Your task to perform on an android device: read, delete, or share a saved page in the chrome app Image 0: 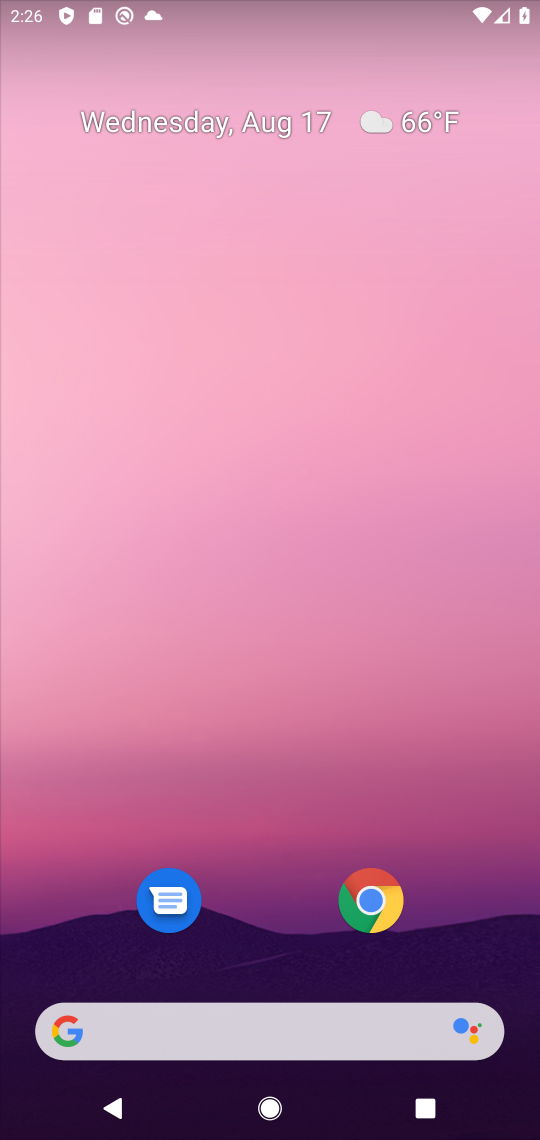
Step 0: click (379, 910)
Your task to perform on an android device: read, delete, or share a saved page in the chrome app Image 1: 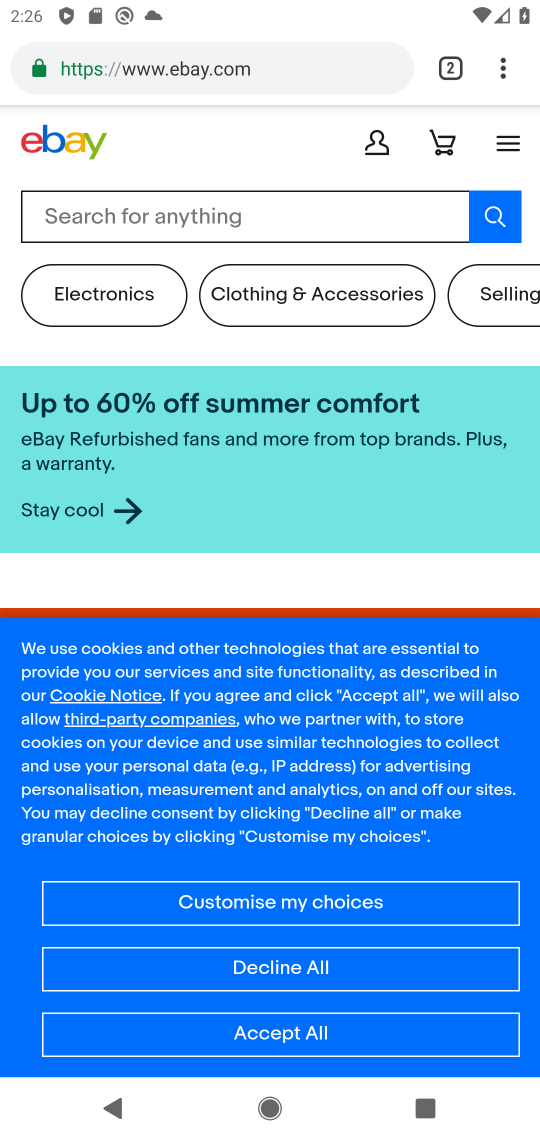
Step 1: drag from (494, 58) to (286, 521)
Your task to perform on an android device: read, delete, or share a saved page in the chrome app Image 2: 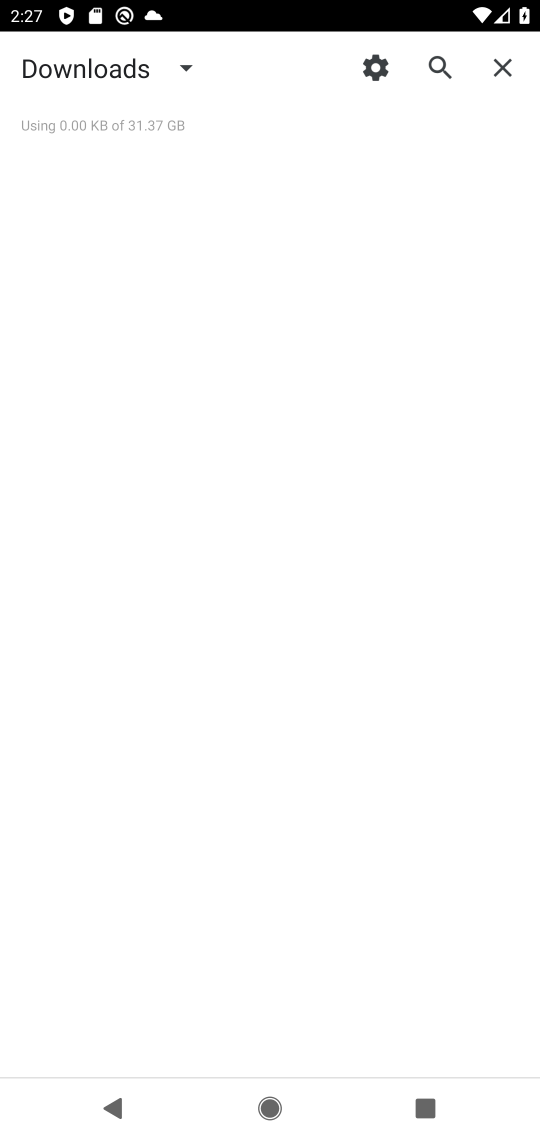
Step 2: click (180, 57)
Your task to perform on an android device: read, delete, or share a saved page in the chrome app Image 3: 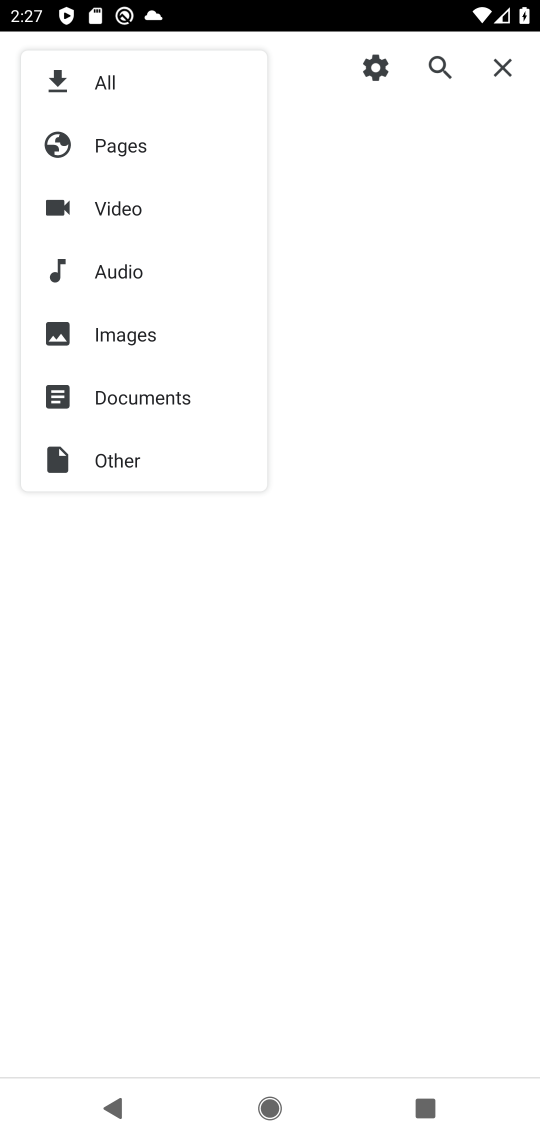
Step 3: click (130, 153)
Your task to perform on an android device: read, delete, or share a saved page in the chrome app Image 4: 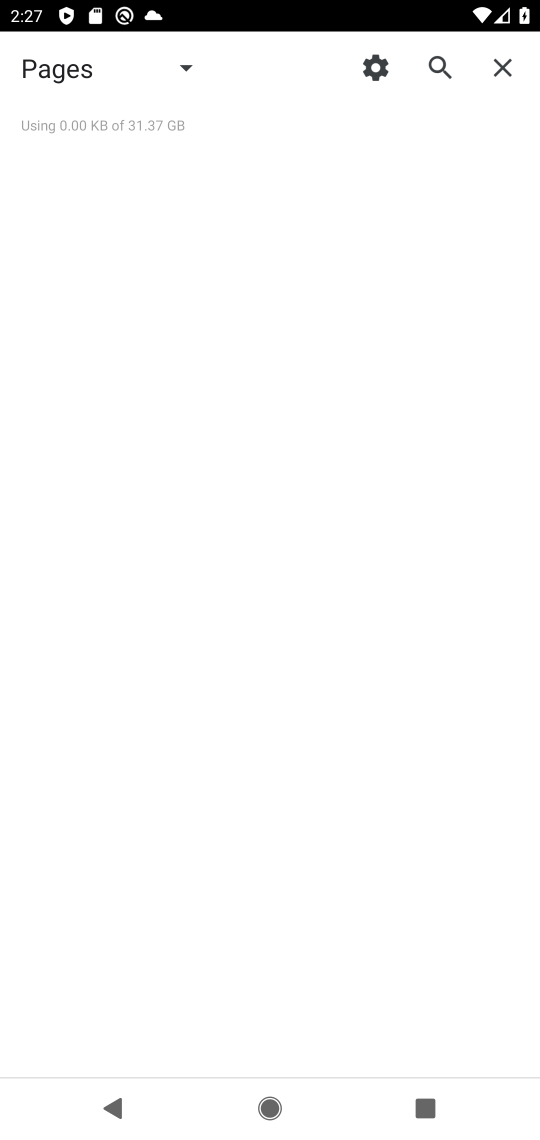
Step 4: task complete